Your task to perform on an android device: turn off notifications settings in the gmail app Image 0: 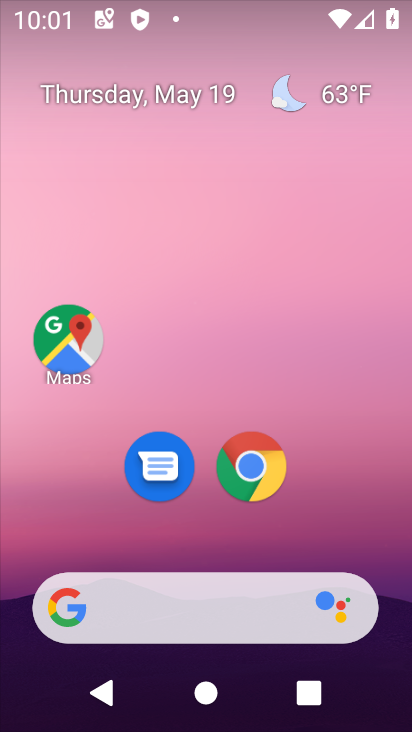
Step 0: drag from (400, 604) to (310, 69)
Your task to perform on an android device: turn off notifications settings in the gmail app Image 1: 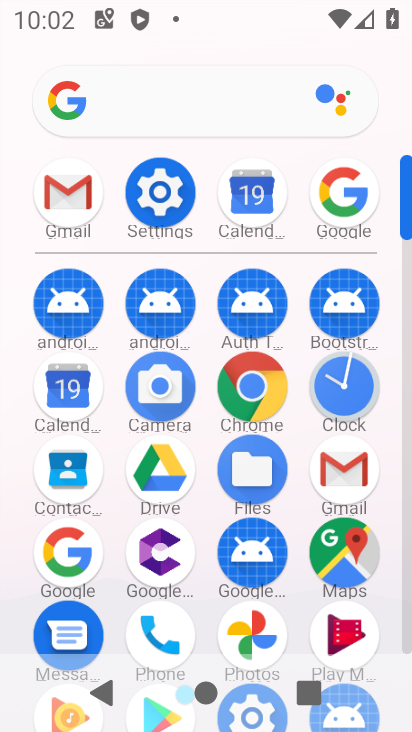
Step 1: click (333, 470)
Your task to perform on an android device: turn off notifications settings in the gmail app Image 2: 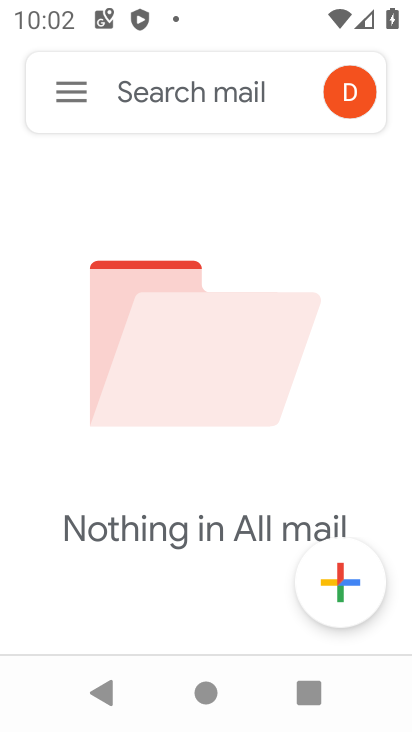
Step 2: click (60, 92)
Your task to perform on an android device: turn off notifications settings in the gmail app Image 3: 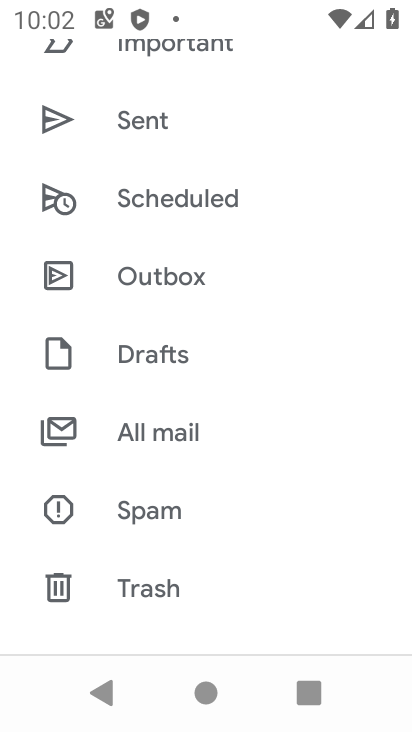
Step 3: drag from (175, 603) to (242, 90)
Your task to perform on an android device: turn off notifications settings in the gmail app Image 4: 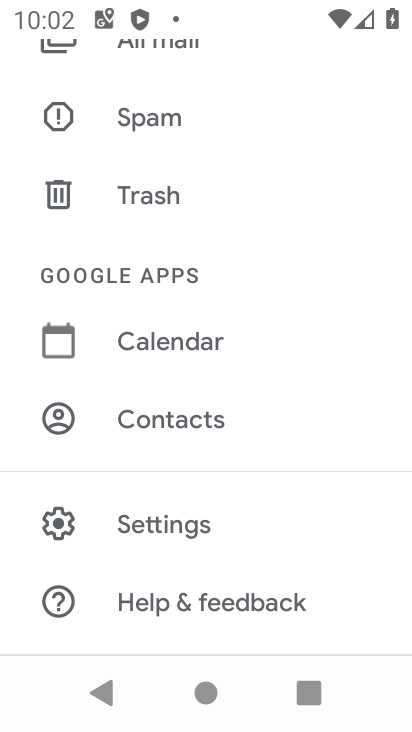
Step 4: click (198, 541)
Your task to perform on an android device: turn off notifications settings in the gmail app Image 5: 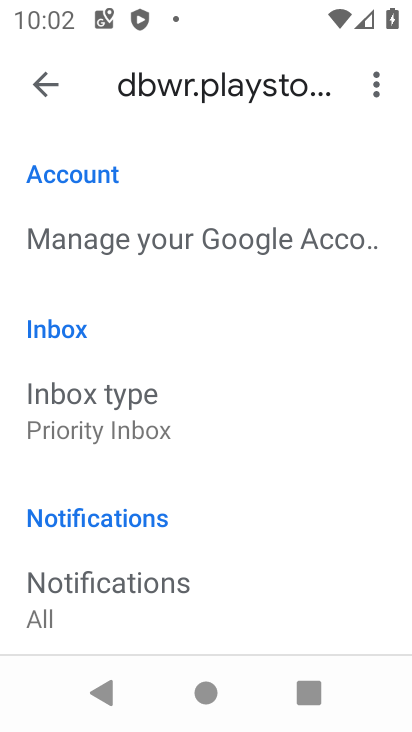
Step 5: click (125, 589)
Your task to perform on an android device: turn off notifications settings in the gmail app Image 6: 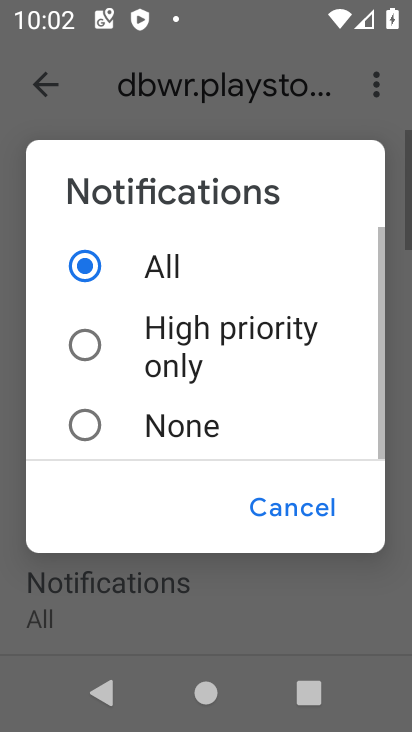
Step 6: click (186, 420)
Your task to perform on an android device: turn off notifications settings in the gmail app Image 7: 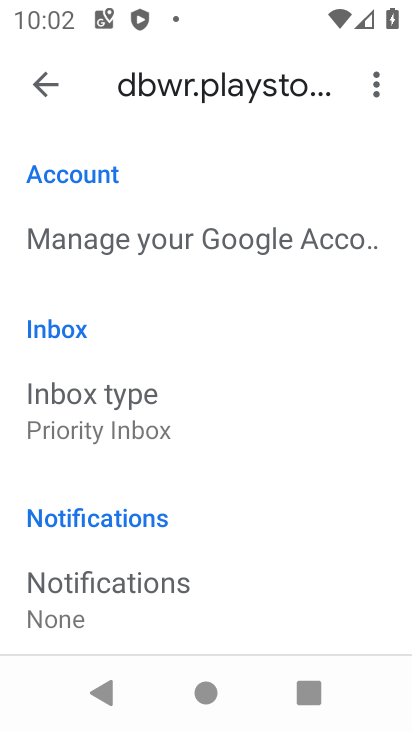
Step 7: task complete